Your task to perform on an android device: turn on improve location accuracy Image 0: 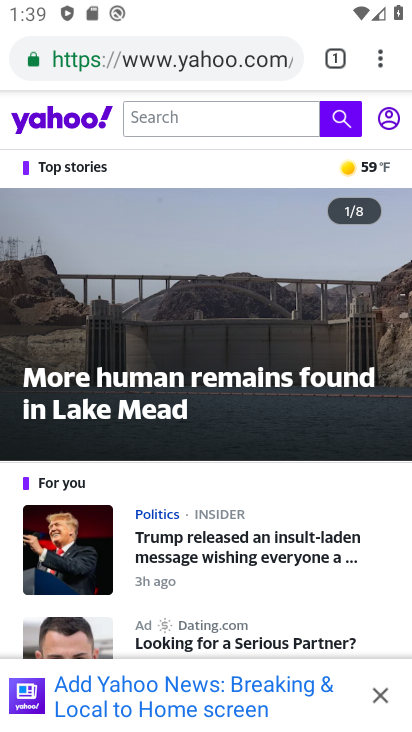
Step 0: press home button
Your task to perform on an android device: turn on improve location accuracy Image 1: 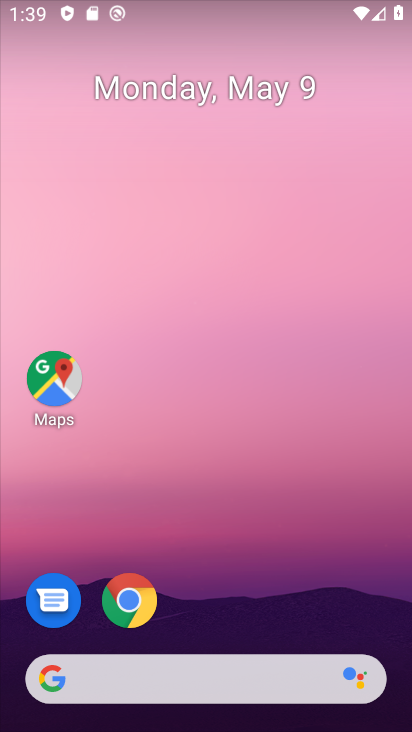
Step 1: drag from (225, 614) to (270, 42)
Your task to perform on an android device: turn on improve location accuracy Image 2: 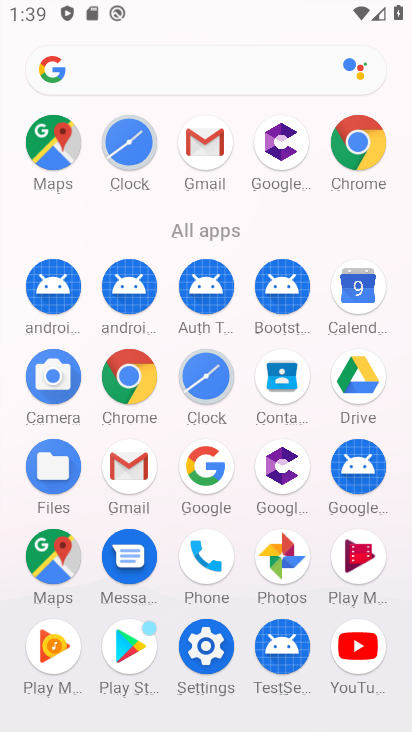
Step 2: click (207, 651)
Your task to perform on an android device: turn on improve location accuracy Image 3: 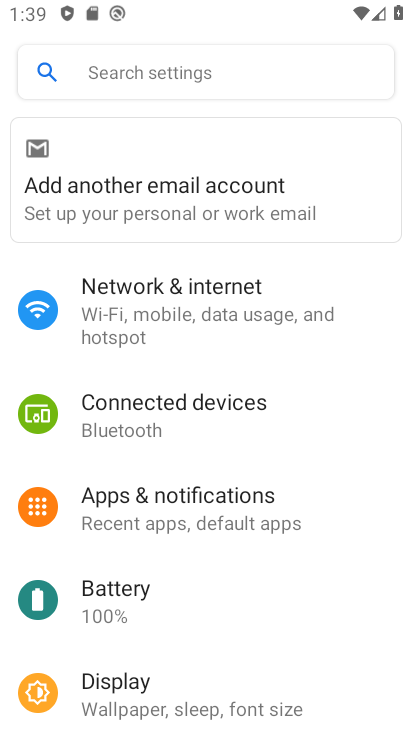
Step 3: drag from (161, 662) to (194, 259)
Your task to perform on an android device: turn on improve location accuracy Image 4: 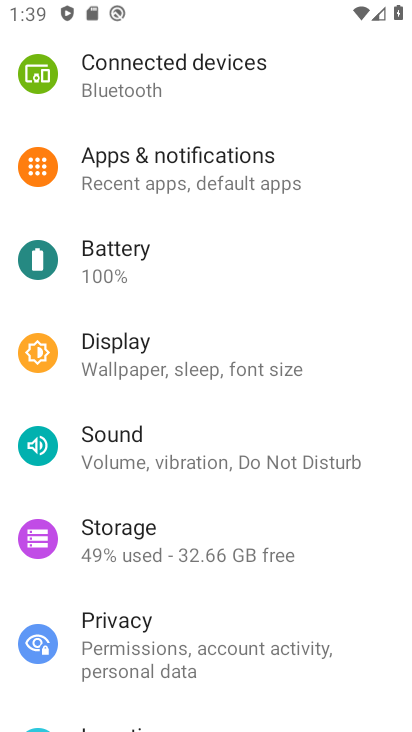
Step 4: drag from (133, 666) to (166, 385)
Your task to perform on an android device: turn on improve location accuracy Image 5: 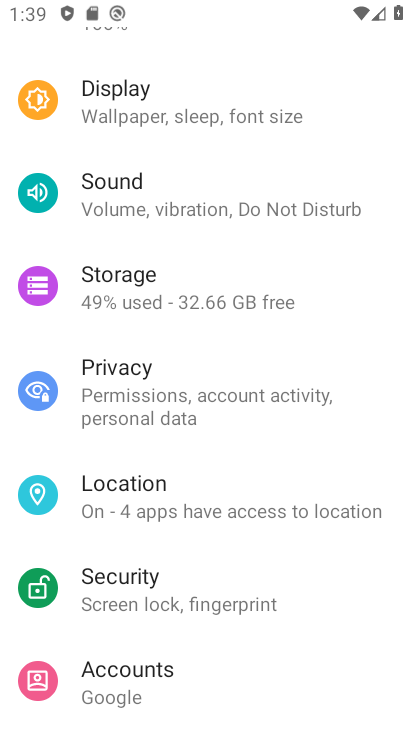
Step 5: click (182, 506)
Your task to perform on an android device: turn on improve location accuracy Image 6: 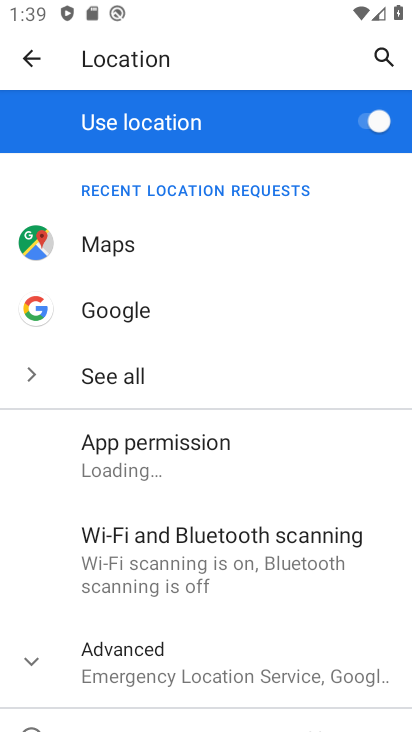
Step 6: drag from (106, 652) to (145, 240)
Your task to perform on an android device: turn on improve location accuracy Image 7: 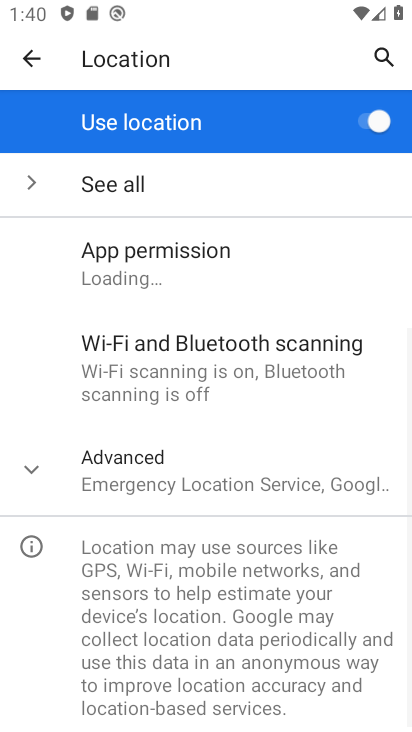
Step 7: click (161, 454)
Your task to perform on an android device: turn on improve location accuracy Image 8: 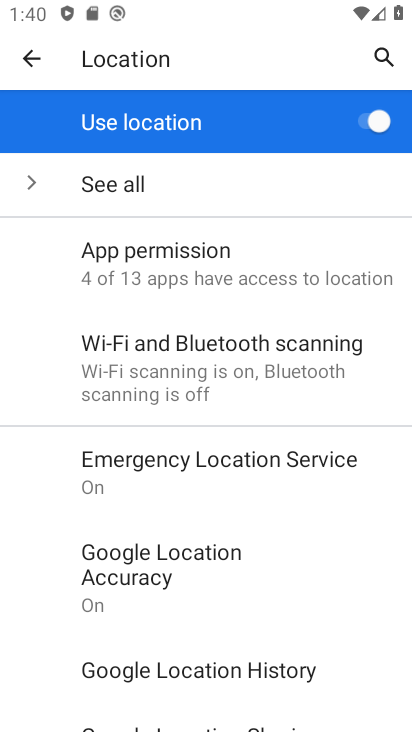
Step 8: drag from (169, 623) to (206, 379)
Your task to perform on an android device: turn on improve location accuracy Image 9: 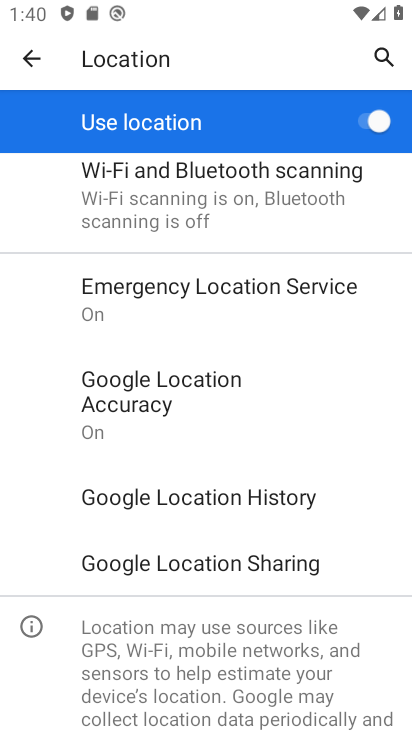
Step 9: click (179, 403)
Your task to perform on an android device: turn on improve location accuracy Image 10: 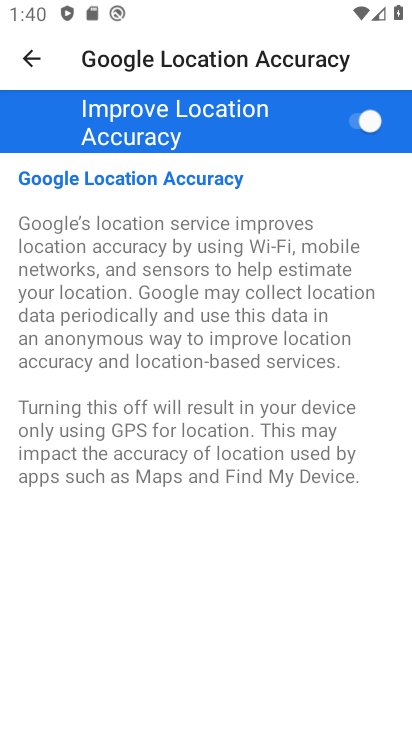
Step 10: task complete